Your task to perform on an android device: What's on my calendar today? Image 0: 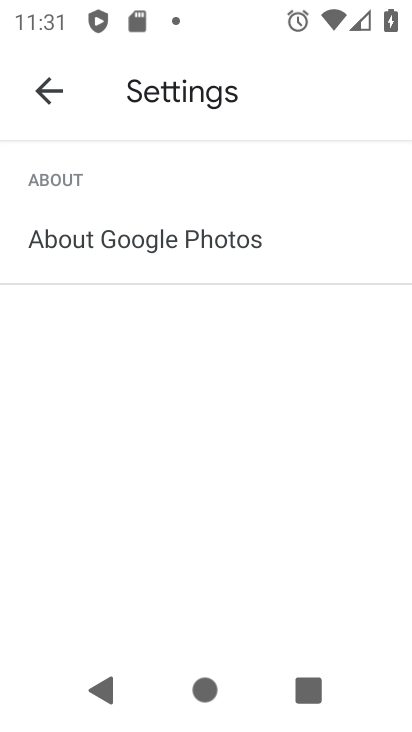
Step 0: press home button
Your task to perform on an android device: What's on my calendar today? Image 1: 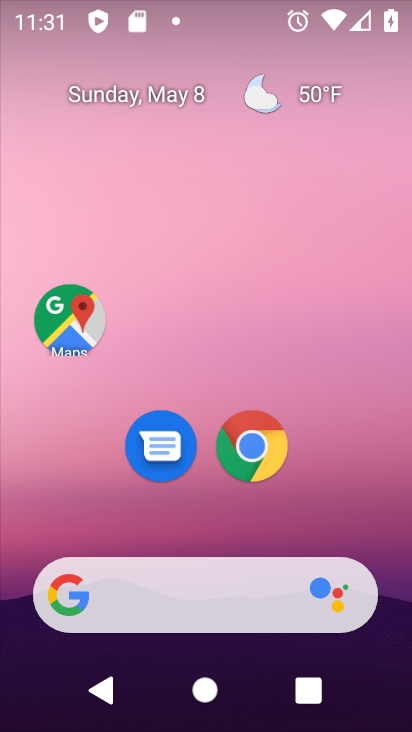
Step 1: drag from (271, 535) to (259, 121)
Your task to perform on an android device: What's on my calendar today? Image 2: 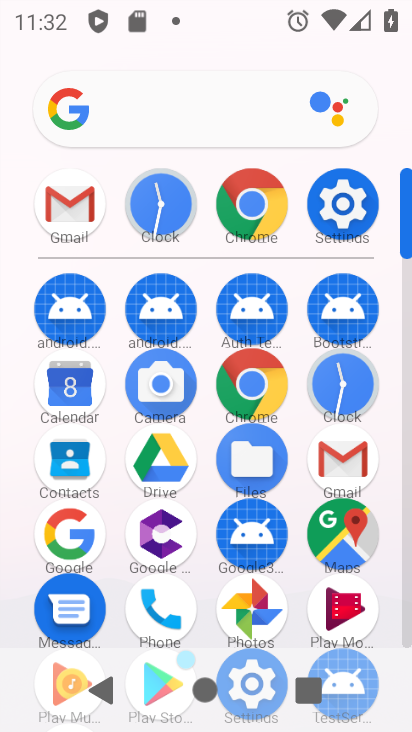
Step 2: click (65, 399)
Your task to perform on an android device: What's on my calendar today? Image 3: 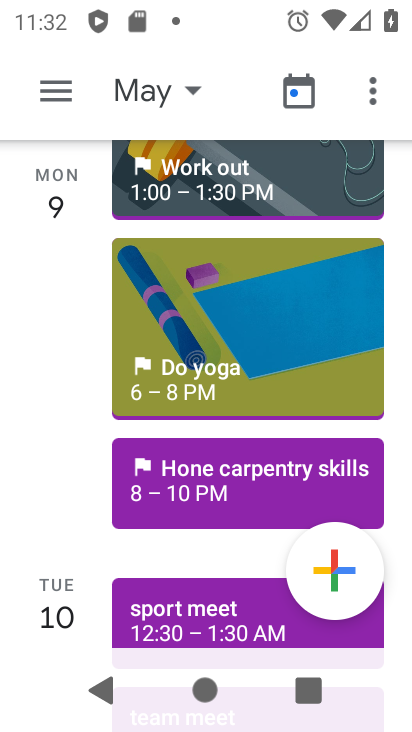
Step 3: click (171, 87)
Your task to perform on an android device: What's on my calendar today? Image 4: 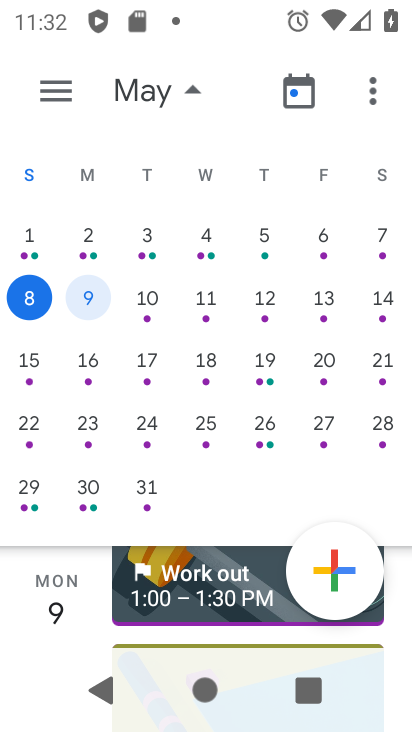
Step 4: click (36, 300)
Your task to perform on an android device: What's on my calendar today? Image 5: 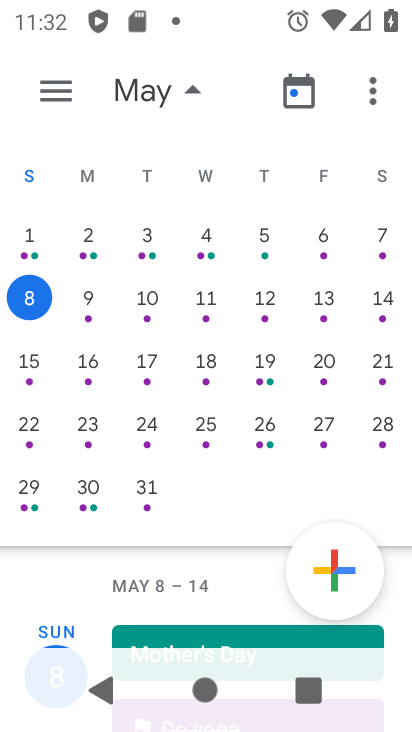
Step 5: task complete